Your task to perform on an android device: turn notification dots on Image 0: 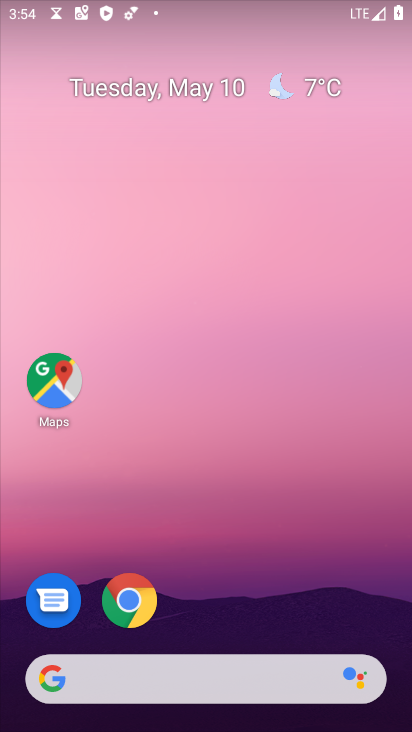
Step 0: drag from (224, 563) to (301, 262)
Your task to perform on an android device: turn notification dots on Image 1: 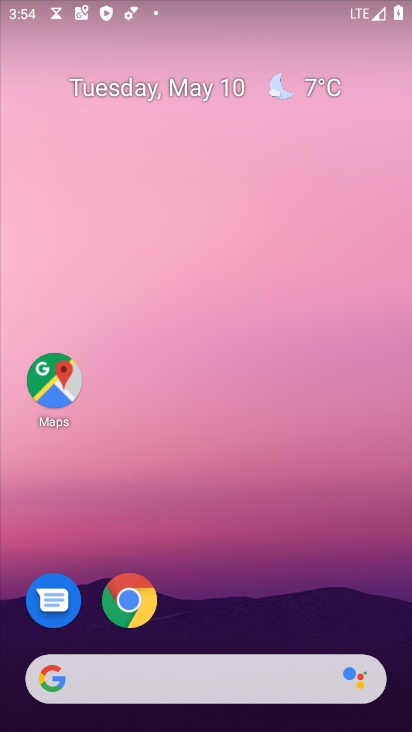
Step 1: click (151, 593)
Your task to perform on an android device: turn notification dots on Image 2: 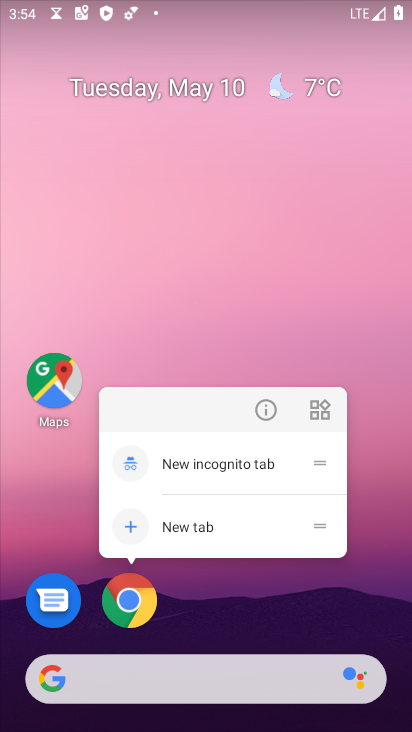
Step 2: click (127, 600)
Your task to perform on an android device: turn notification dots on Image 3: 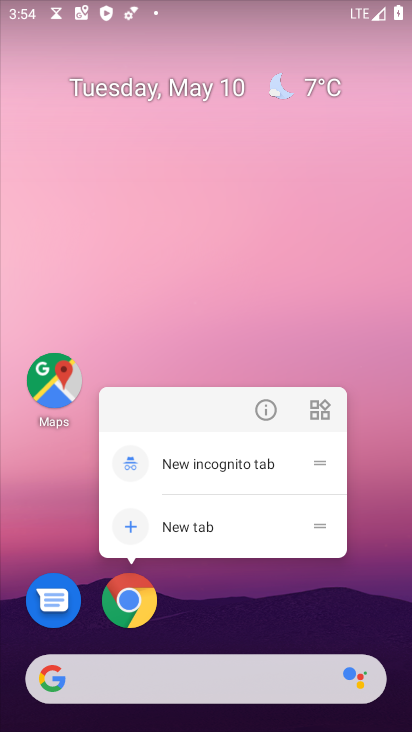
Step 3: click (128, 568)
Your task to perform on an android device: turn notification dots on Image 4: 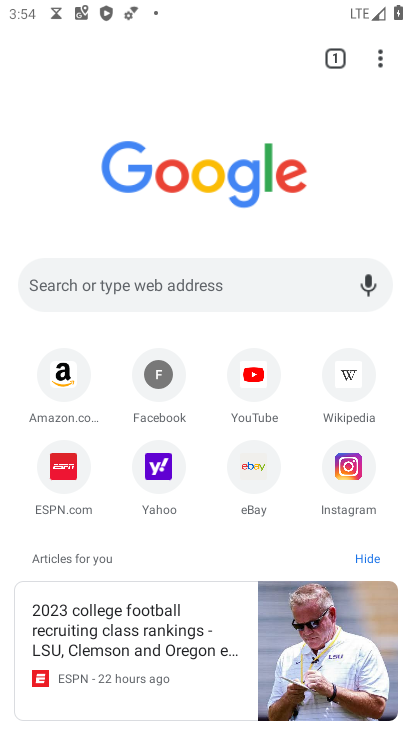
Step 4: click (376, 50)
Your task to perform on an android device: turn notification dots on Image 5: 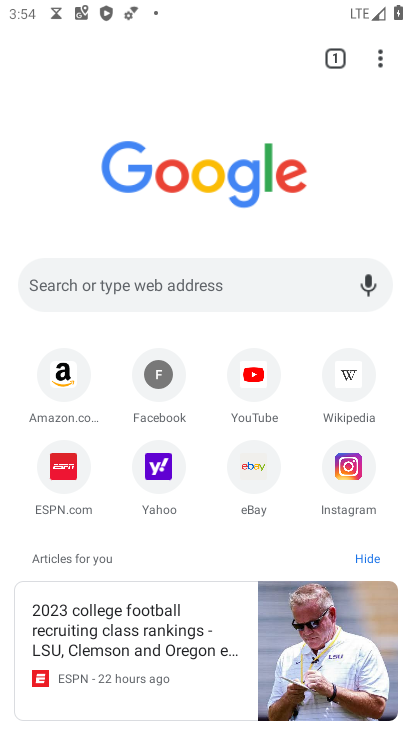
Step 5: click (385, 60)
Your task to perform on an android device: turn notification dots on Image 6: 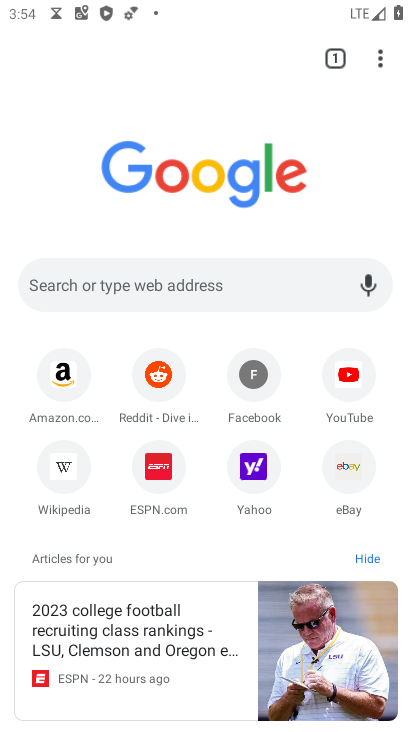
Step 6: click (385, 61)
Your task to perform on an android device: turn notification dots on Image 7: 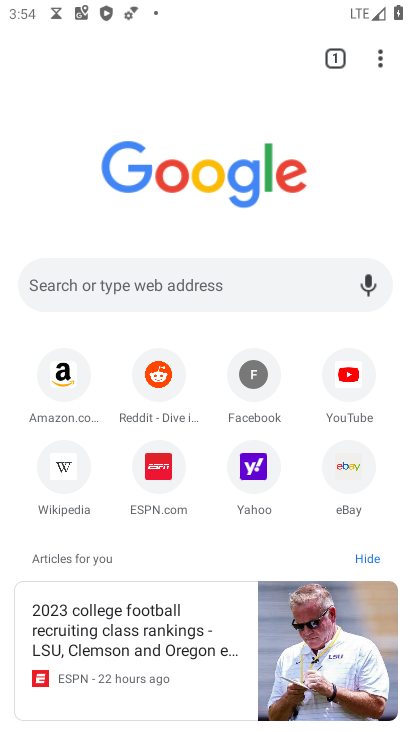
Step 7: click (385, 64)
Your task to perform on an android device: turn notification dots on Image 8: 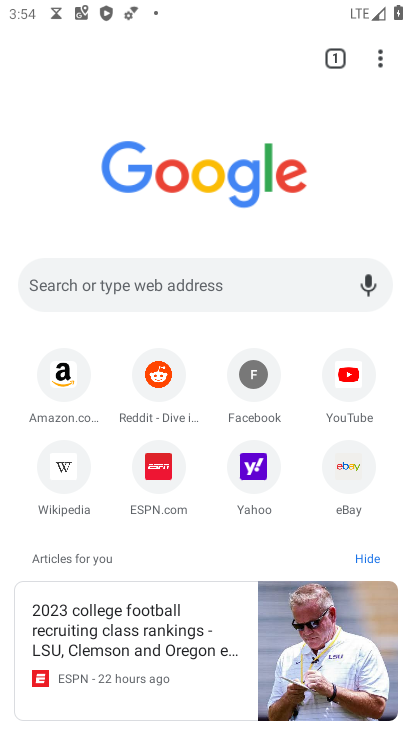
Step 8: click (378, 53)
Your task to perform on an android device: turn notification dots on Image 9: 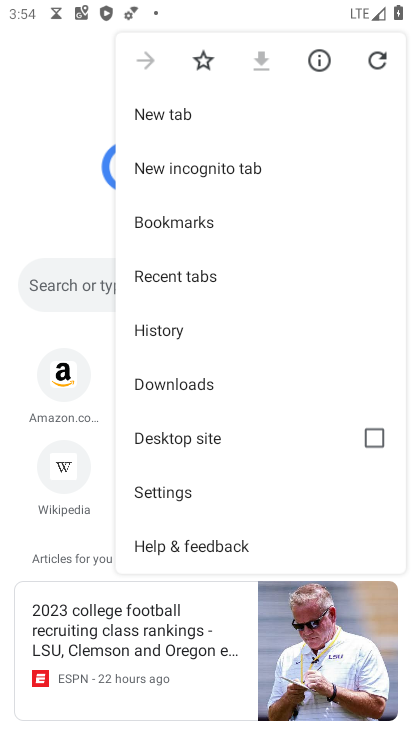
Step 9: click (149, 485)
Your task to perform on an android device: turn notification dots on Image 10: 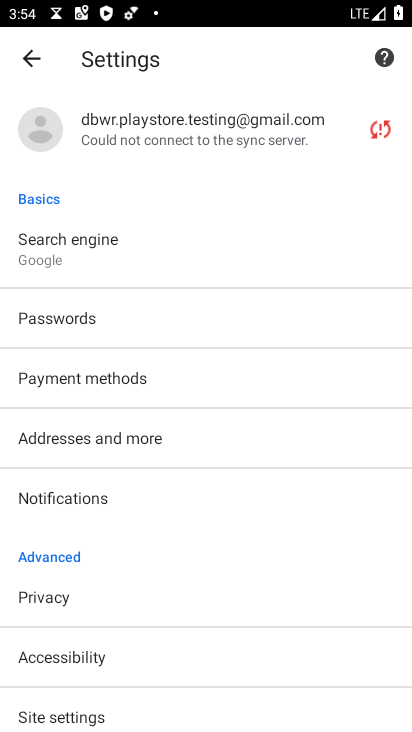
Step 10: drag from (160, 602) to (187, 348)
Your task to perform on an android device: turn notification dots on Image 11: 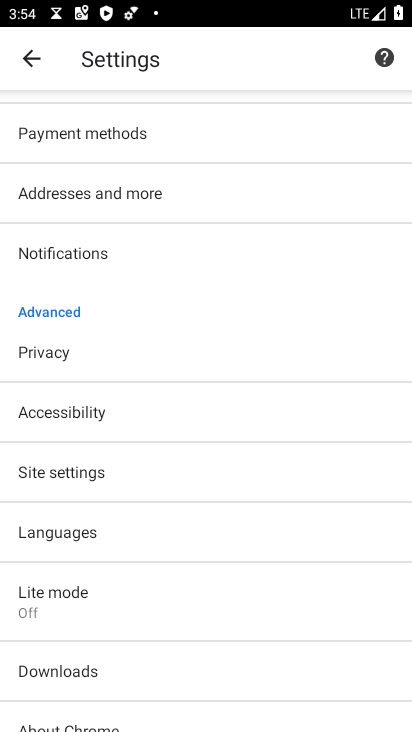
Step 11: click (199, 477)
Your task to perform on an android device: turn notification dots on Image 12: 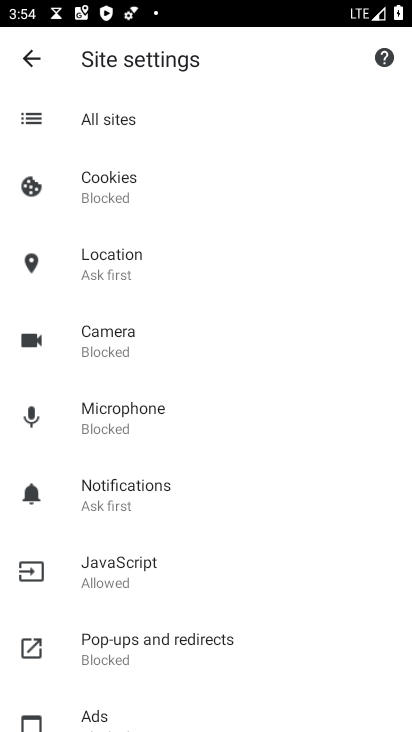
Step 12: drag from (193, 593) to (218, 348)
Your task to perform on an android device: turn notification dots on Image 13: 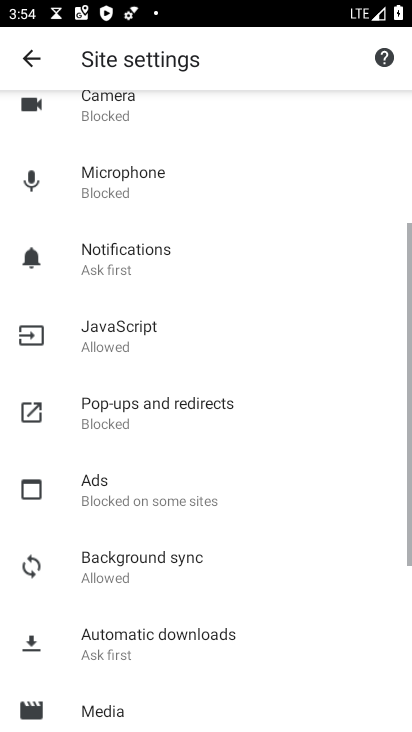
Step 13: drag from (221, 632) to (259, 347)
Your task to perform on an android device: turn notification dots on Image 14: 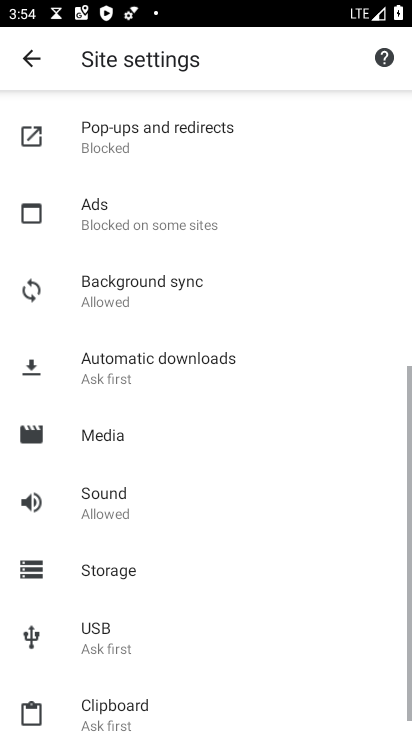
Step 14: drag from (182, 194) to (230, 605)
Your task to perform on an android device: turn notification dots on Image 15: 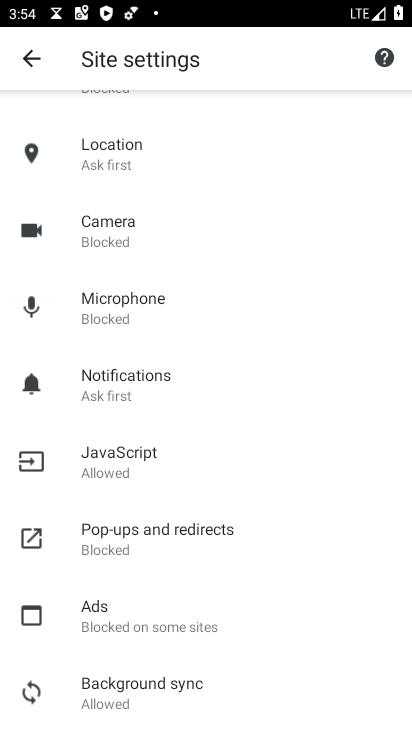
Step 15: click (213, 387)
Your task to perform on an android device: turn notification dots on Image 16: 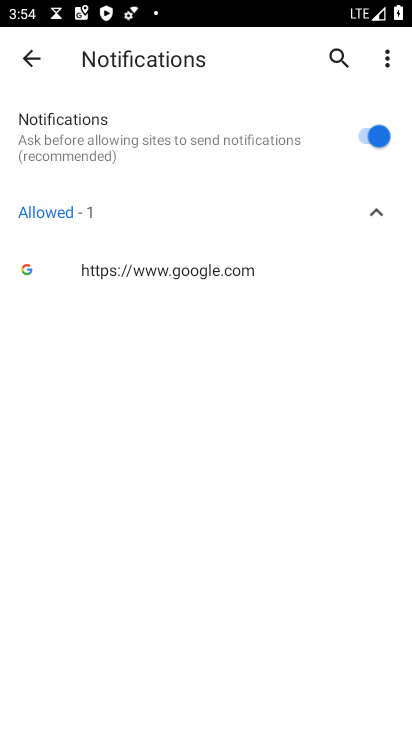
Step 16: task complete